Your task to perform on an android device: change the clock display to analog Image 0: 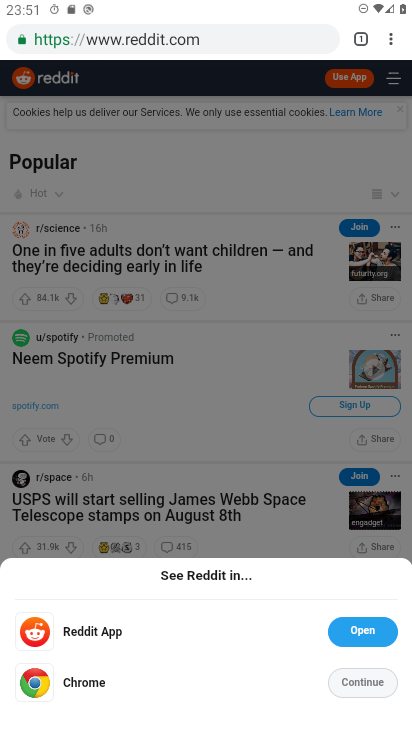
Step 0: press home button
Your task to perform on an android device: change the clock display to analog Image 1: 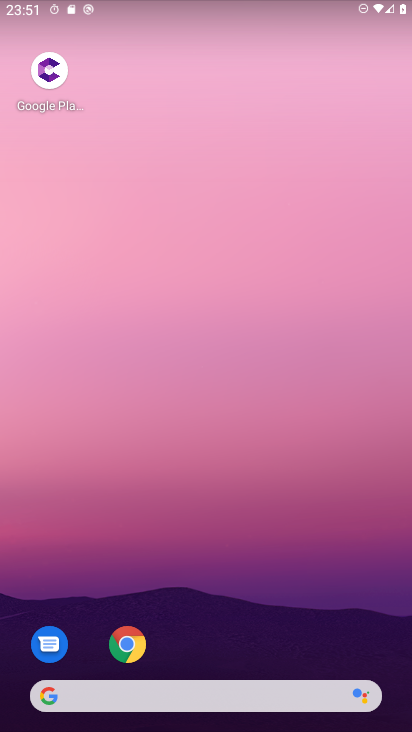
Step 1: drag from (226, 638) to (185, 14)
Your task to perform on an android device: change the clock display to analog Image 2: 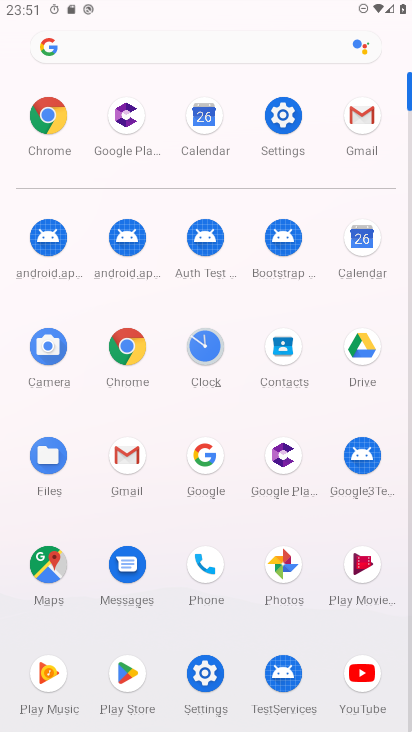
Step 2: click (203, 343)
Your task to perform on an android device: change the clock display to analog Image 3: 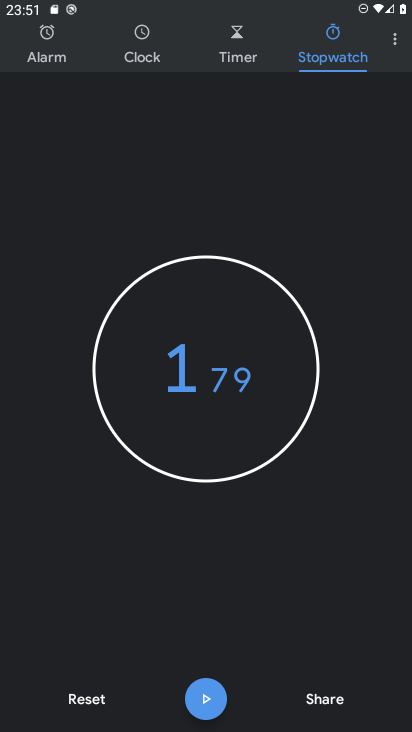
Step 3: click (403, 57)
Your task to perform on an android device: change the clock display to analog Image 4: 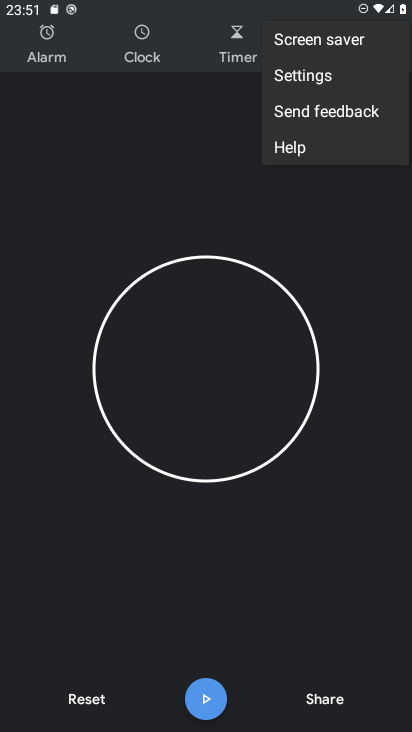
Step 4: click (296, 76)
Your task to perform on an android device: change the clock display to analog Image 5: 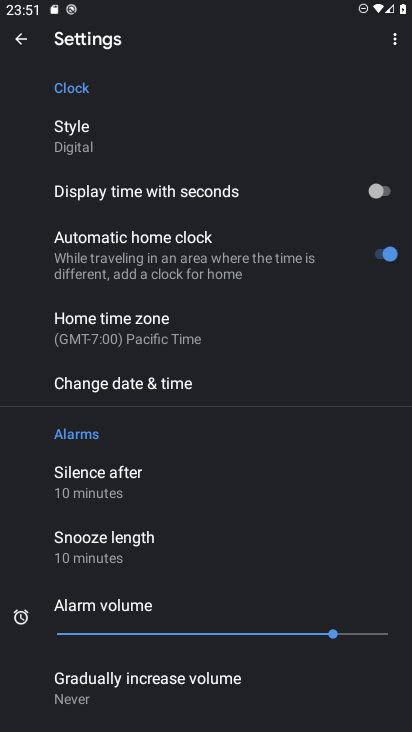
Step 5: click (86, 126)
Your task to perform on an android device: change the clock display to analog Image 6: 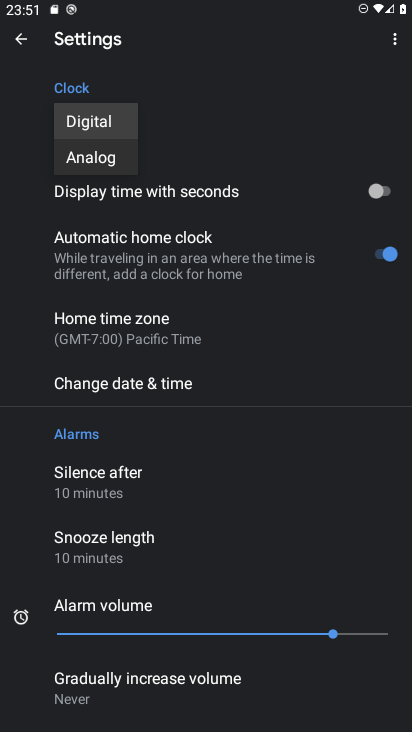
Step 6: click (99, 160)
Your task to perform on an android device: change the clock display to analog Image 7: 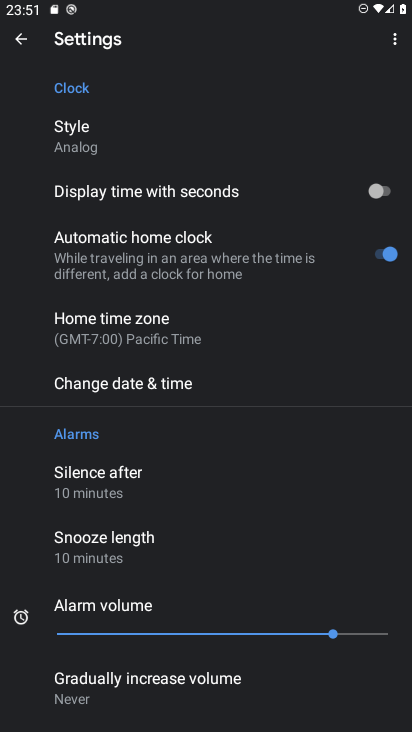
Step 7: task complete